Your task to perform on an android device: Go to accessibility settings Image 0: 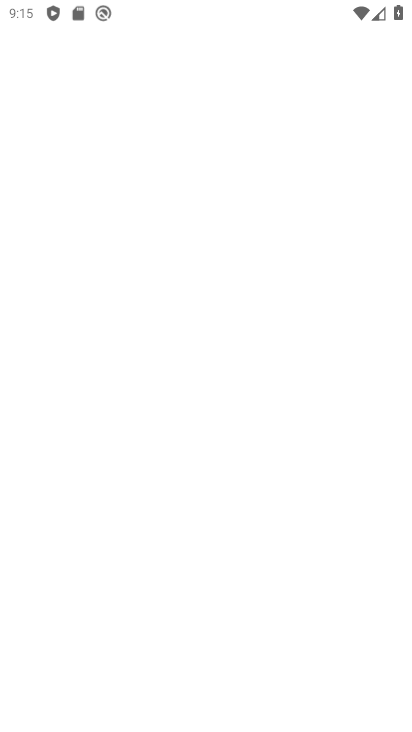
Step 0: click (162, 603)
Your task to perform on an android device: Go to accessibility settings Image 1: 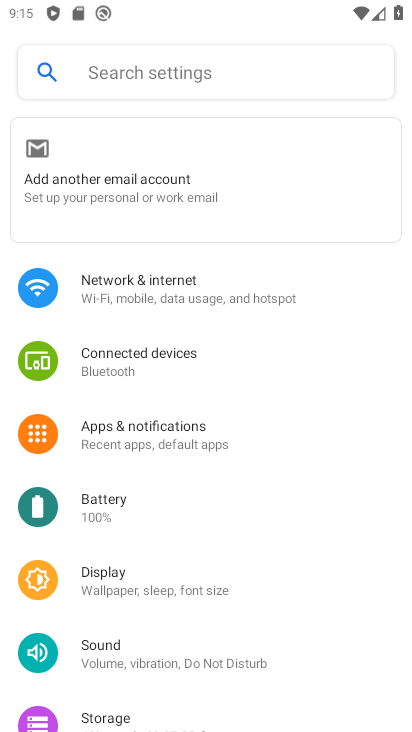
Step 1: press home button
Your task to perform on an android device: Go to accessibility settings Image 2: 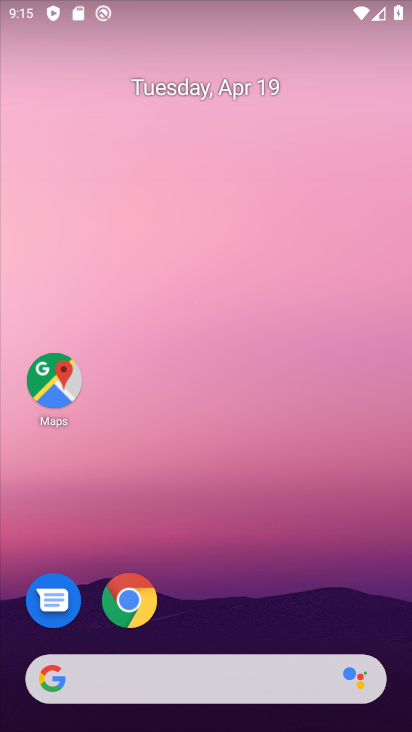
Step 2: click (138, 610)
Your task to perform on an android device: Go to accessibility settings Image 3: 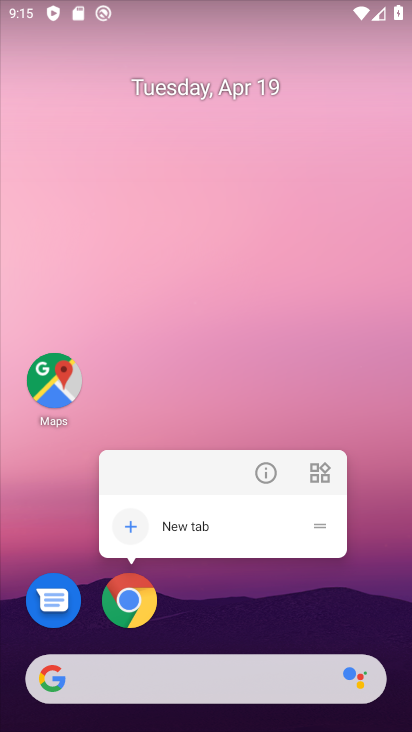
Step 3: click (124, 597)
Your task to perform on an android device: Go to accessibility settings Image 4: 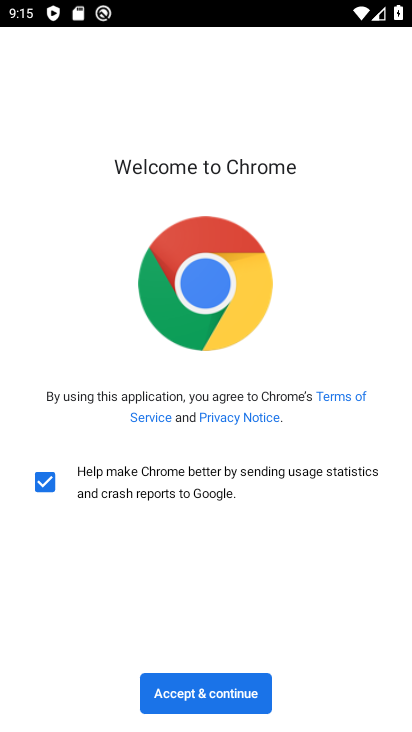
Step 4: click (244, 707)
Your task to perform on an android device: Go to accessibility settings Image 5: 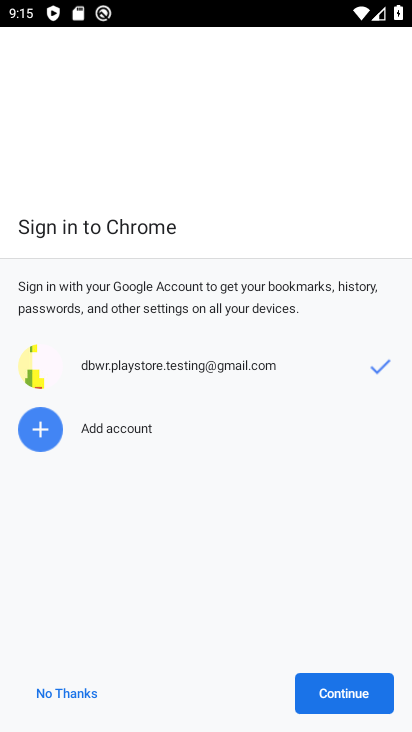
Step 5: click (390, 683)
Your task to perform on an android device: Go to accessibility settings Image 6: 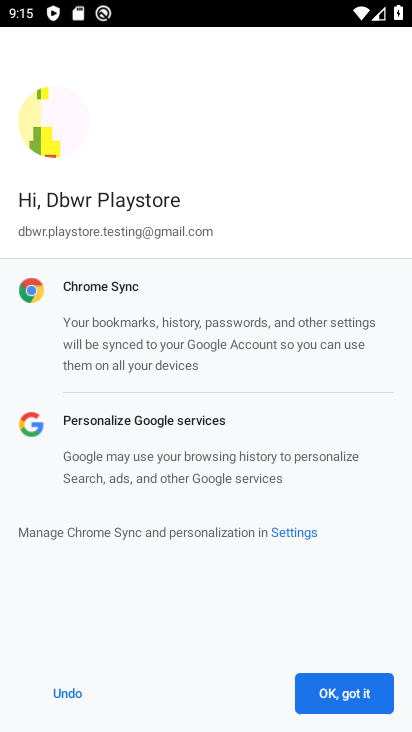
Step 6: click (389, 683)
Your task to perform on an android device: Go to accessibility settings Image 7: 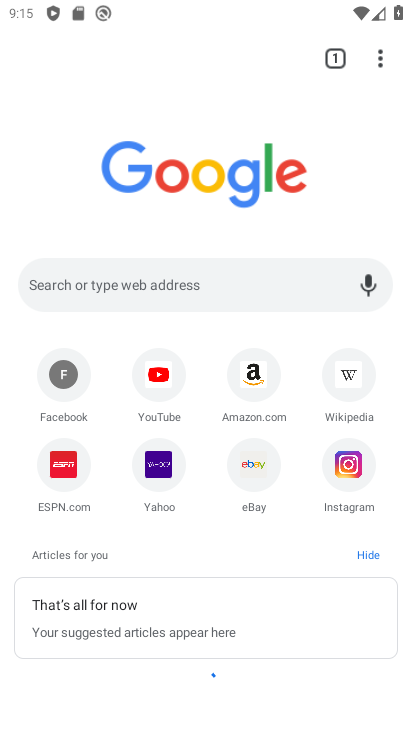
Step 7: click (382, 52)
Your task to perform on an android device: Go to accessibility settings Image 8: 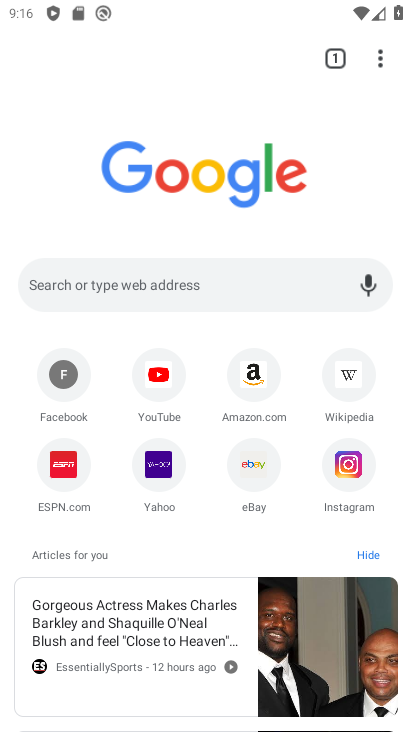
Step 8: click (381, 55)
Your task to perform on an android device: Go to accessibility settings Image 9: 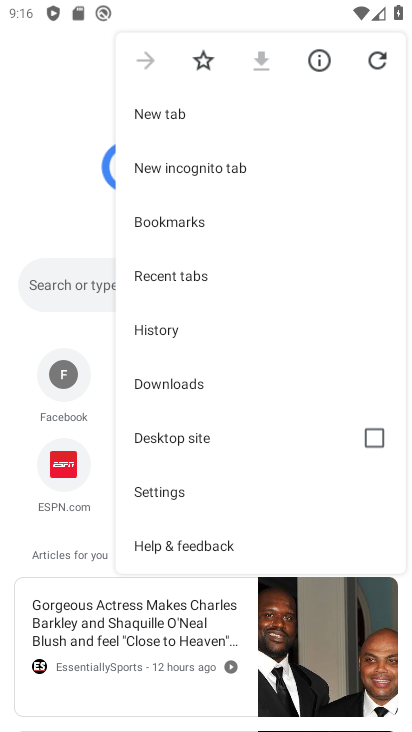
Step 9: click (236, 492)
Your task to perform on an android device: Go to accessibility settings Image 10: 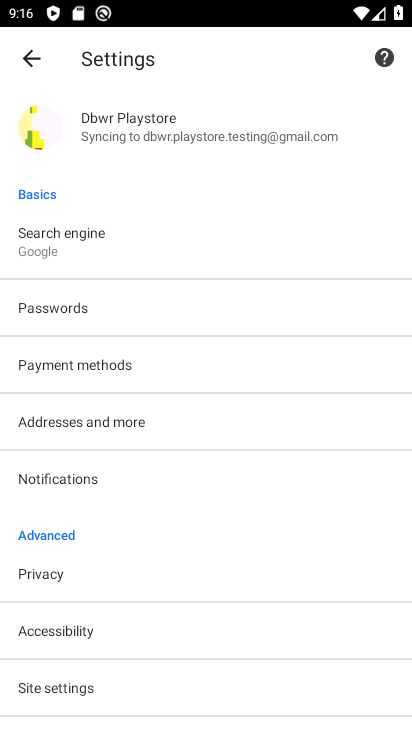
Step 10: click (209, 642)
Your task to perform on an android device: Go to accessibility settings Image 11: 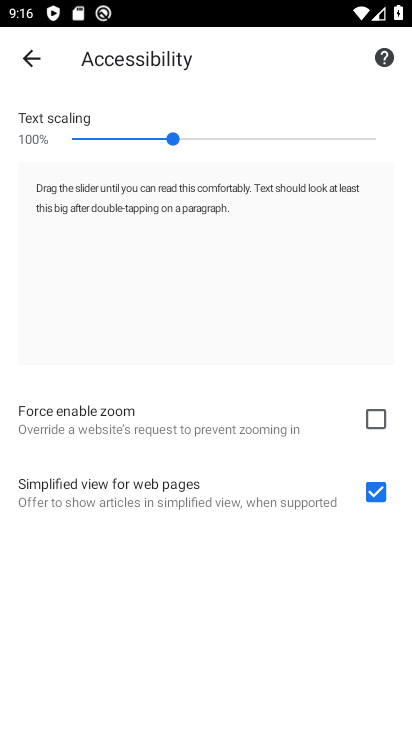
Step 11: task complete